Your task to perform on an android device: Go to sound settings Image 0: 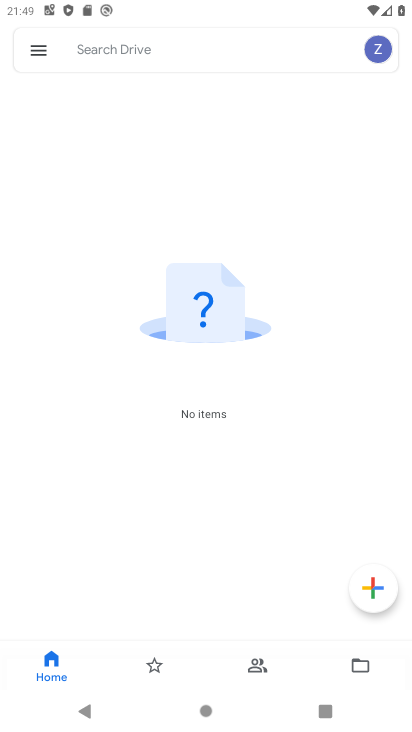
Step 0: press home button
Your task to perform on an android device: Go to sound settings Image 1: 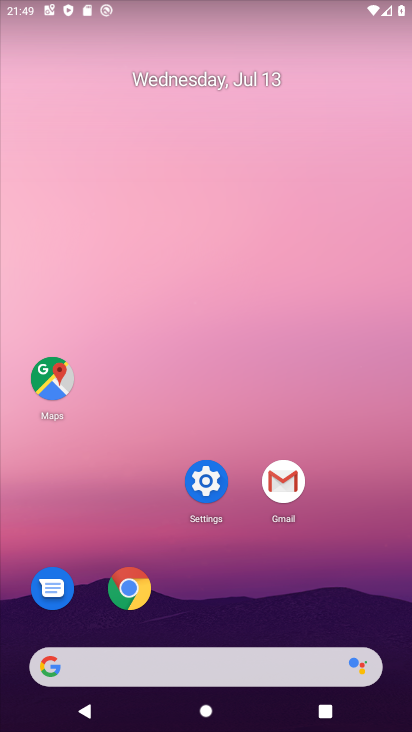
Step 1: click (201, 483)
Your task to perform on an android device: Go to sound settings Image 2: 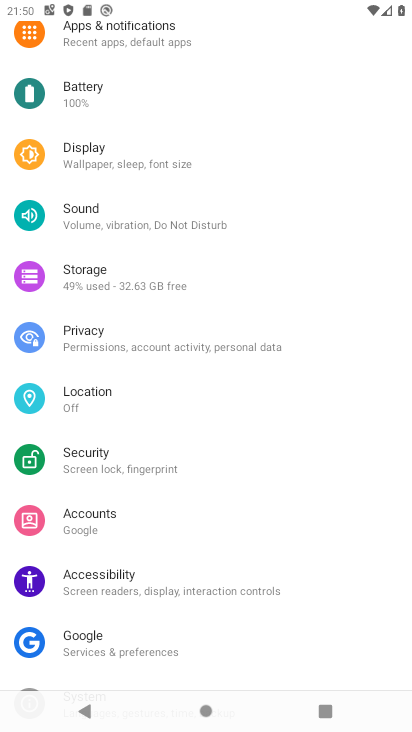
Step 2: click (84, 210)
Your task to perform on an android device: Go to sound settings Image 3: 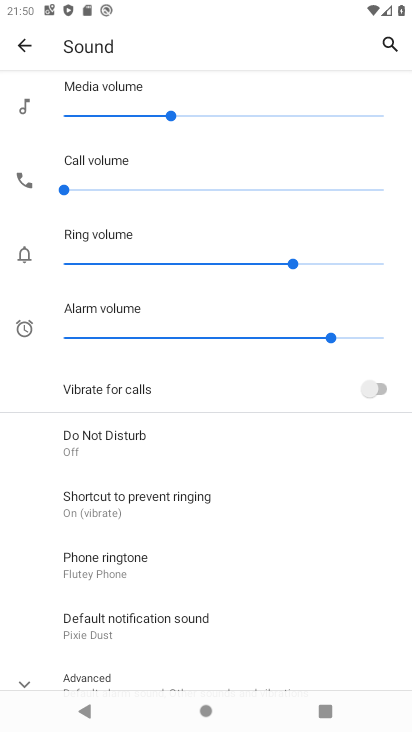
Step 3: task complete